Your task to perform on an android device: Open notification settings Image 0: 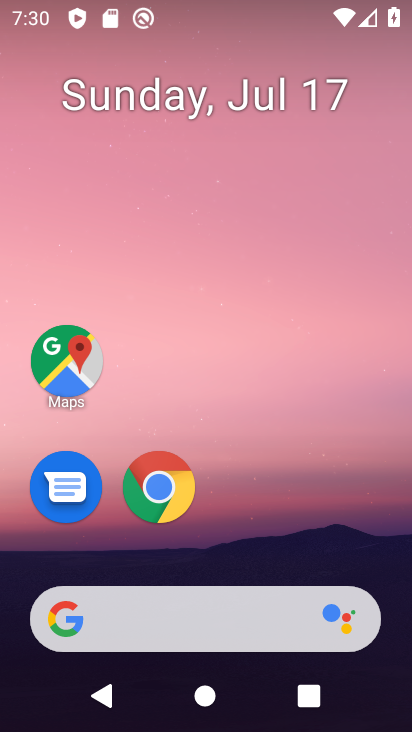
Step 0: drag from (368, 557) to (371, 71)
Your task to perform on an android device: Open notification settings Image 1: 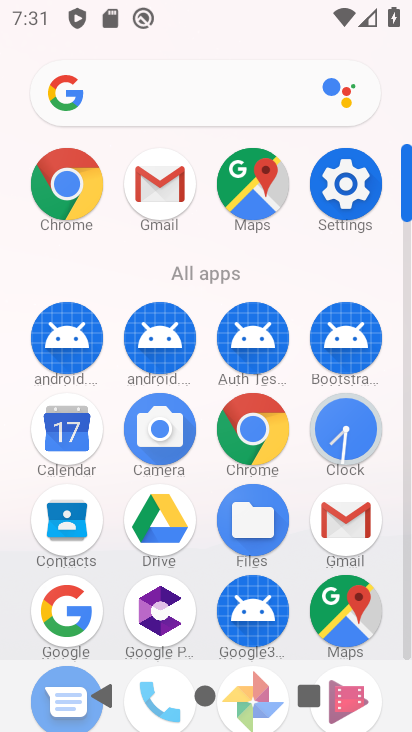
Step 1: click (349, 180)
Your task to perform on an android device: Open notification settings Image 2: 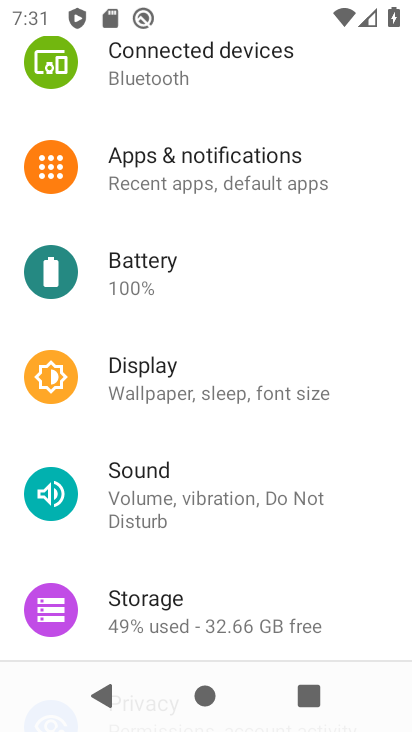
Step 2: drag from (342, 501) to (357, 394)
Your task to perform on an android device: Open notification settings Image 3: 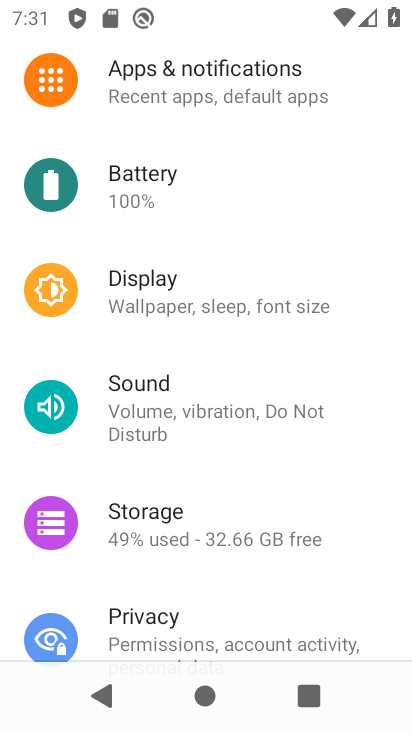
Step 3: drag from (349, 522) to (347, 380)
Your task to perform on an android device: Open notification settings Image 4: 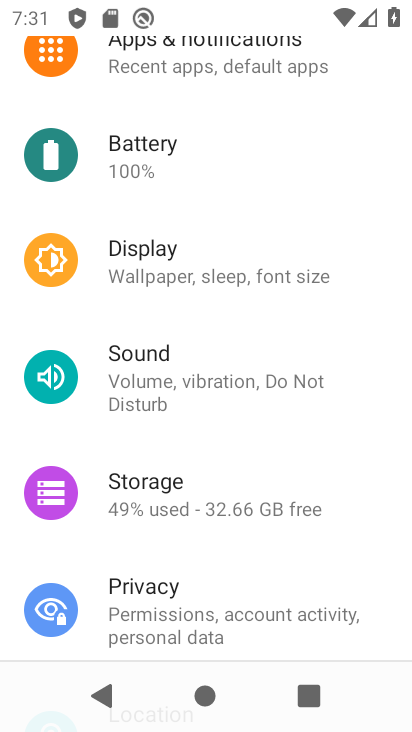
Step 4: drag from (335, 564) to (346, 305)
Your task to perform on an android device: Open notification settings Image 5: 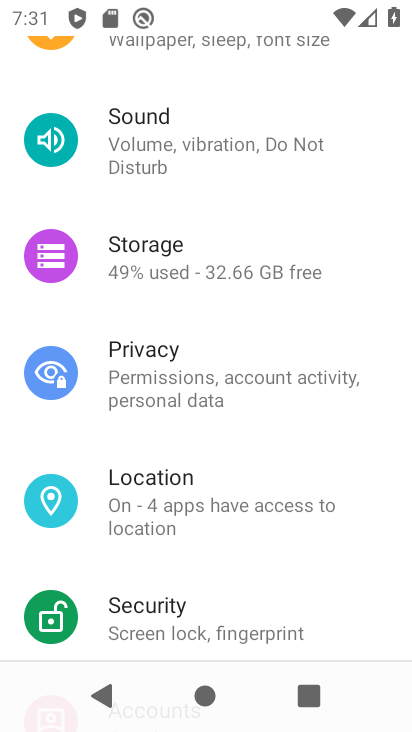
Step 5: drag from (348, 578) to (353, 388)
Your task to perform on an android device: Open notification settings Image 6: 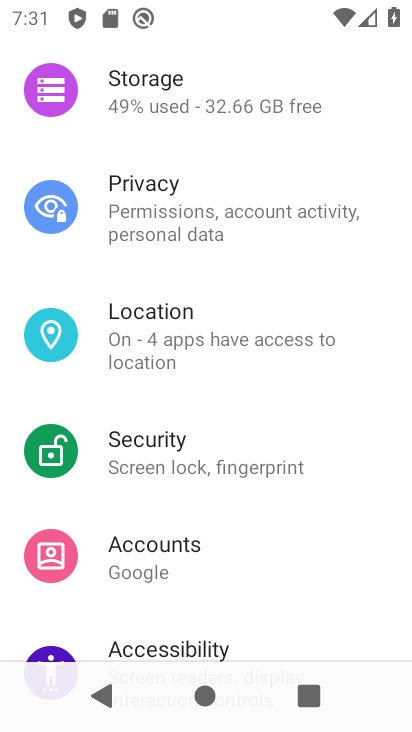
Step 6: drag from (358, 544) to (358, 365)
Your task to perform on an android device: Open notification settings Image 7: 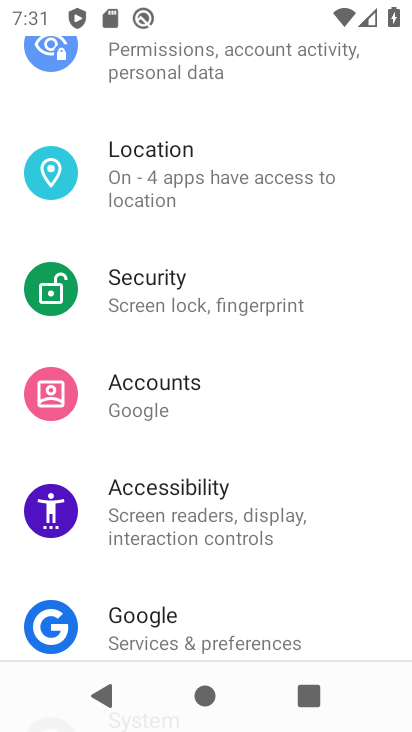
Step 7: drag from (346, 555) to (347, 394)
Your task to perform on an android device: Open notification settings Image 8: 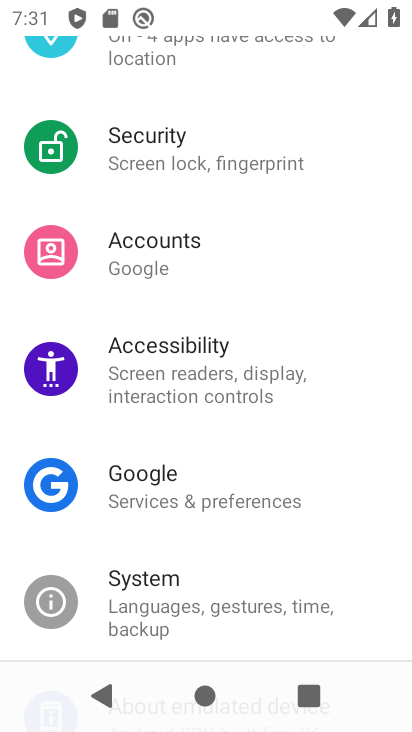
Step 8: drag from (345, 562) to (360, 316)
Your task to perform on an android device: Open notification settings Image 9: 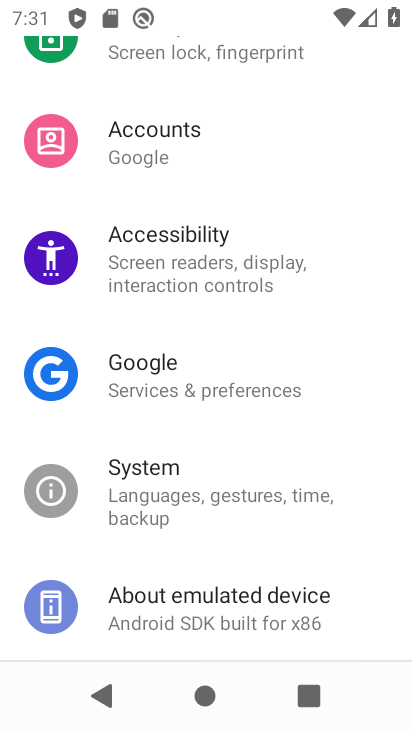
Step 9: drag from (364, 266) to (375, 375)
Your task to perform on an android device: Open notification settings Image 10: 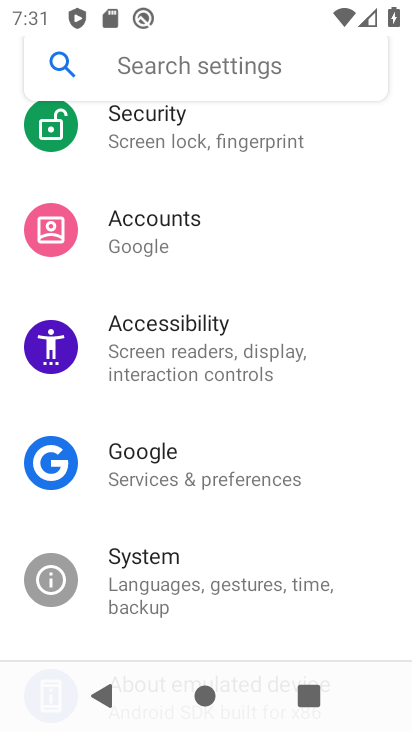
Step 10: drag from (360, 277) to (363, 421)
Your task to perform on an android device: Open notification settings Image 11: 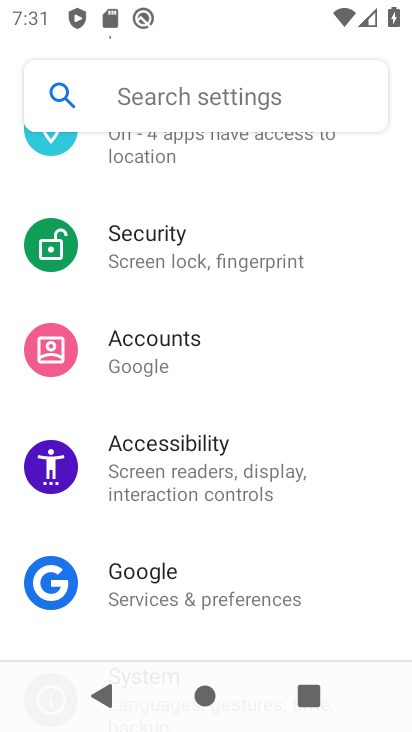
Step 11: drag from (358, 297) to (357, 436)
Your task to perform on an android device: Open notification settings Image 12: 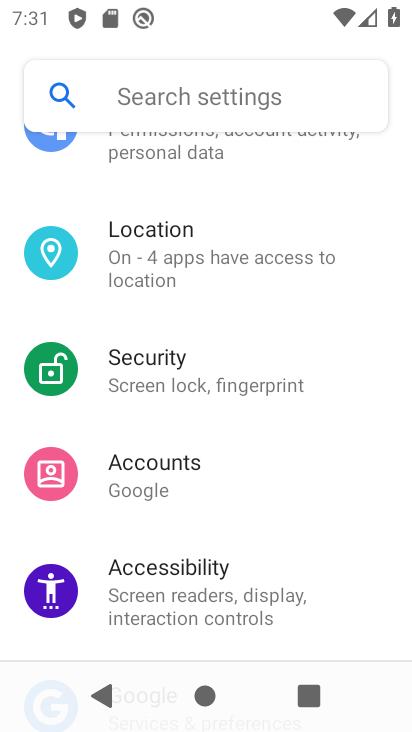
Step 12: drag from (357, 221) to (369, 367)
Your task to perform on an android device: Open notification settings Image 13: 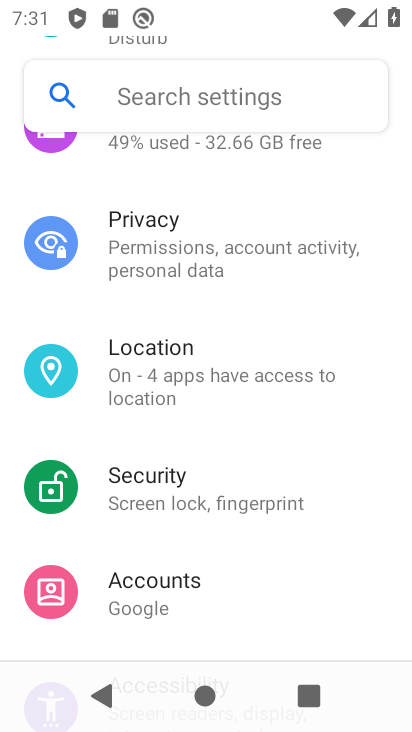
Step 13: drag from (370, 214) to (374, 364)
Your task to perform on an android device: Open notification settings Image 14: 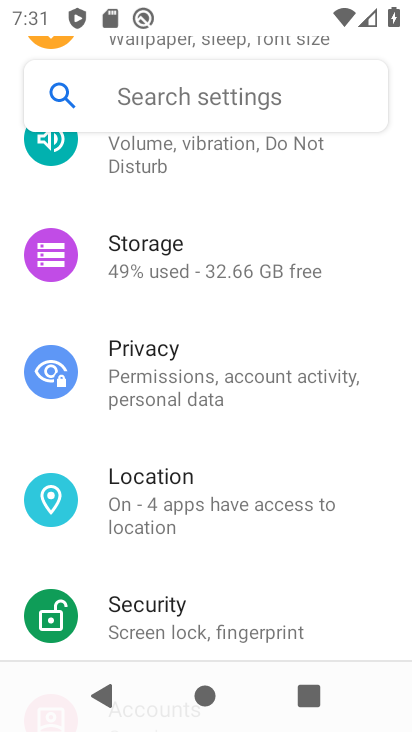
Step 14: drag from (356, 205) to (363, 315)
Your task to perform on an android device: Open notification settings Image 15: 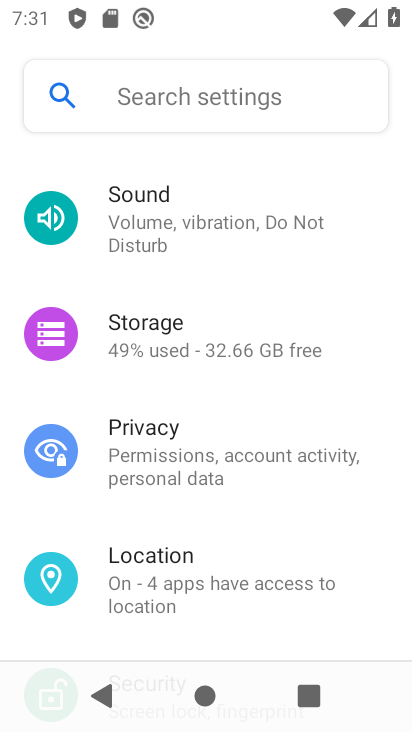
Step 15: drag from (363, 200) to (371, 384)
Your task to perform on an android device: Open notification settings Image 16: 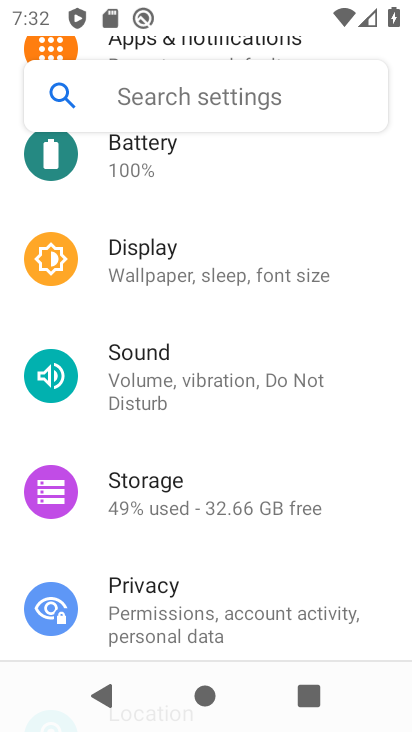
Step 16: drag from (367, 228) to (370, 357)
Your task to perform on an android device: Open notification settings Image 17: 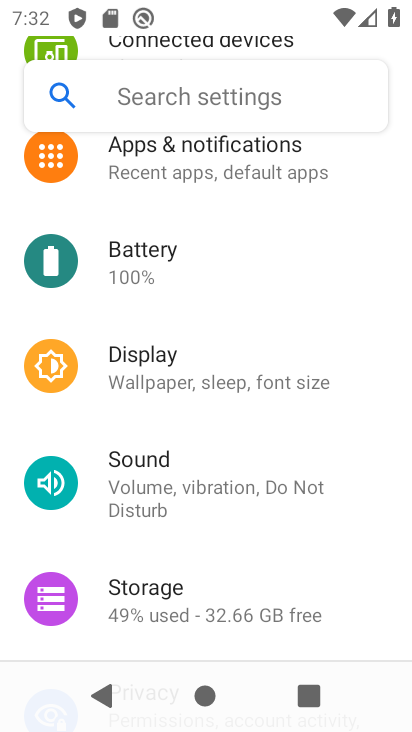
Step 17: drag from (352, 216) to (361, 355)
Your task to perform on an android device: Open notification settings Image 18: 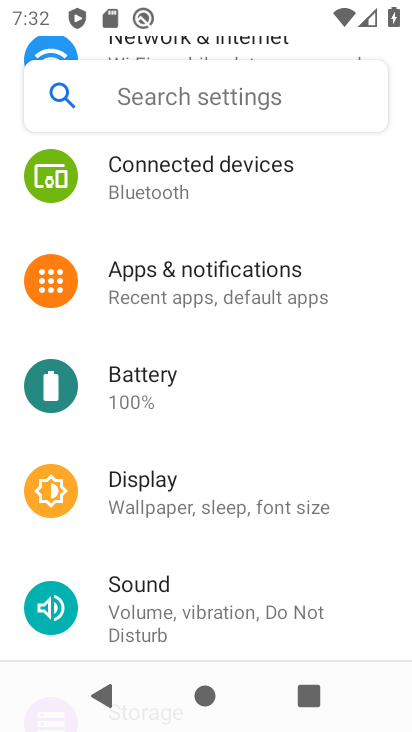
Step 18: click (308, 269)
Your task to perform on an android device: Open notification settings Image 19: 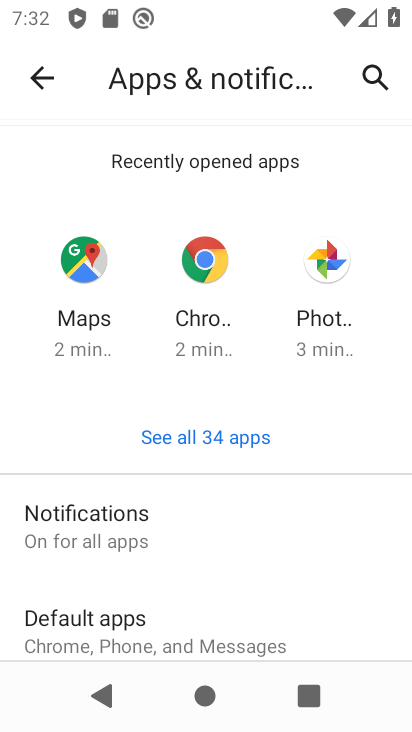
Step 19: click (148, 538)
Your task to perform on an android device: Open notification settings Image 20: 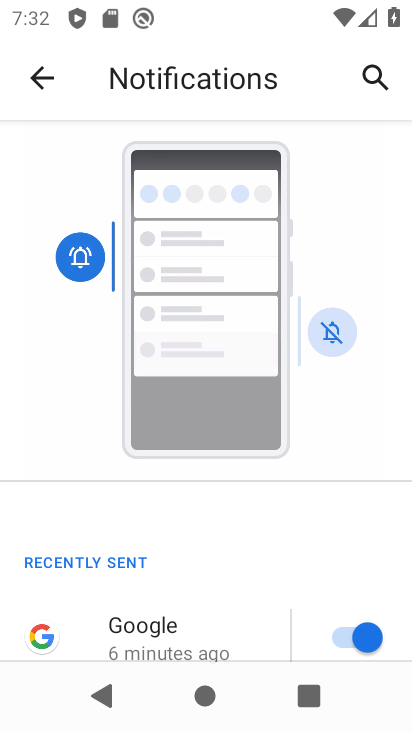
Step 20: task complete